Your task to perform on an android device: toggle airplane mode Image 0: 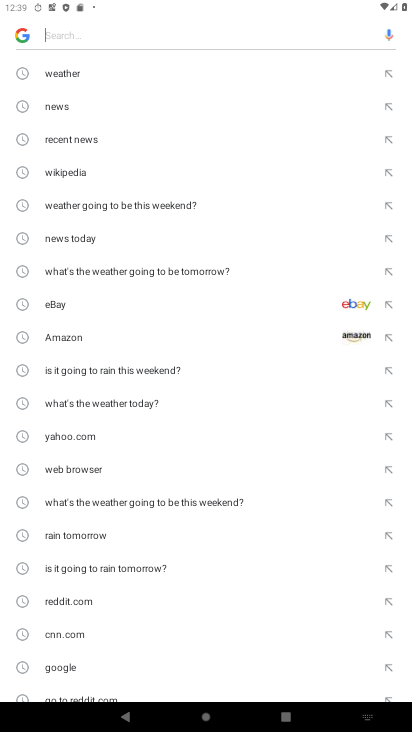
Step 0: press home button
Your task to perform on an android device: toggle airplane mode Image 1: 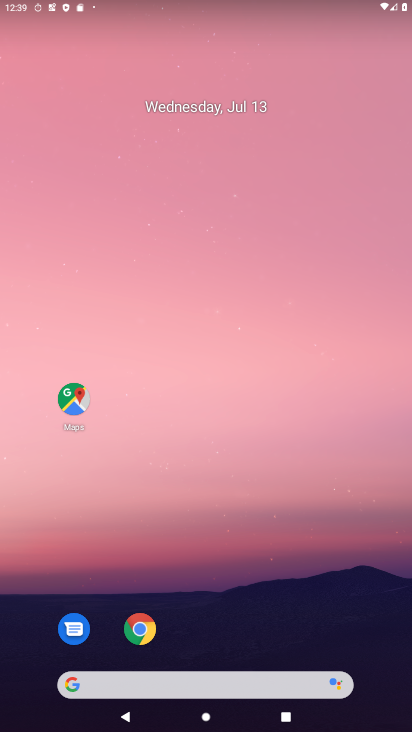
Step 1: drag from (205, 638) to (195, 248)
Your task to perform on an android device: toggle airplane mode Image 2: 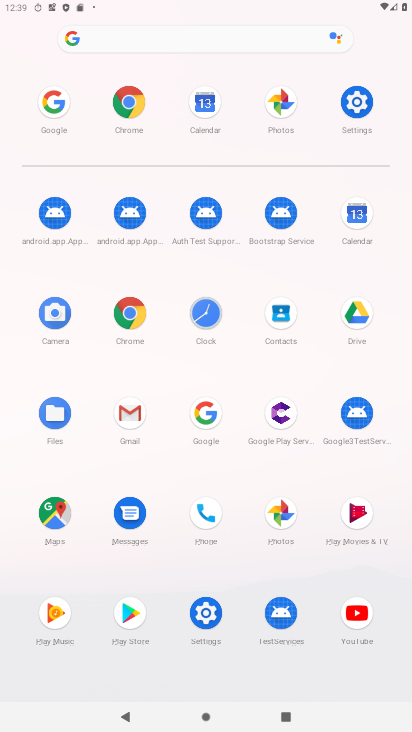
Step 2: click (341, 100)
Your task to perform on an android device: toggle airplane mode Image 3: 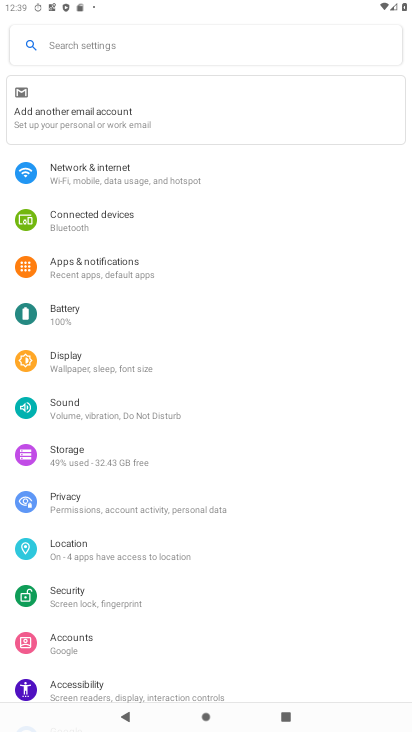
Step 3: click (125, 179)
Your task to perform on an android device: toggle airplane mode Image 4: 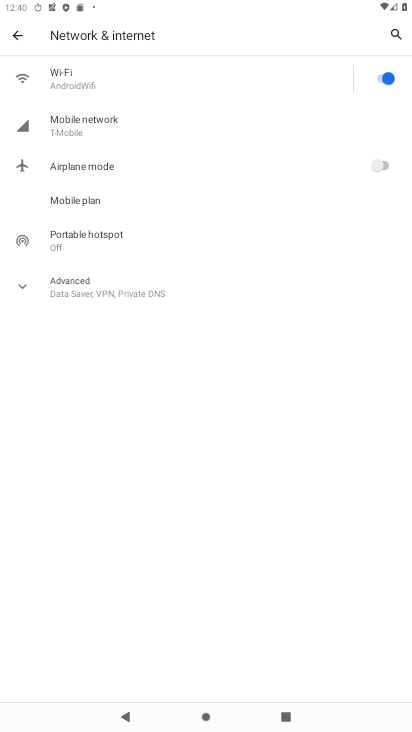
Step 4: click (383, 160)
Your task to perform on an android device: toggle airplane mode Image 5: 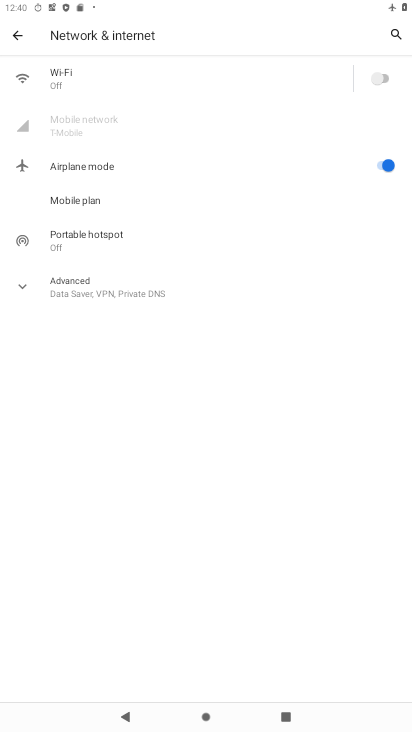
Step 5: task complete